Your task to perform on an android device: set the timer Image 0: 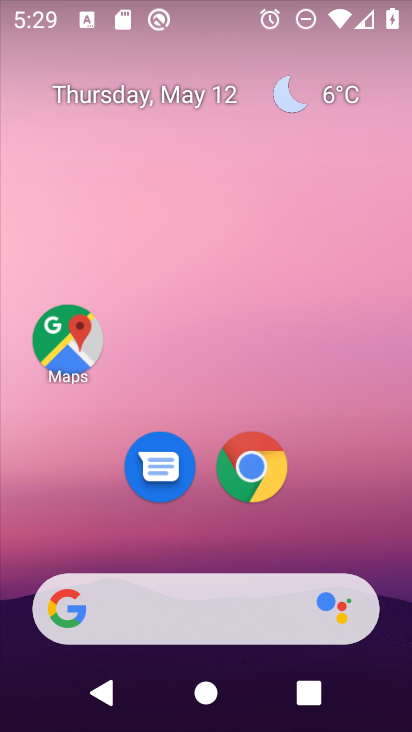
Step 0: drag from (359, 581) to (353, 3)
Your task to perform on an android device: set the timer Image 1: 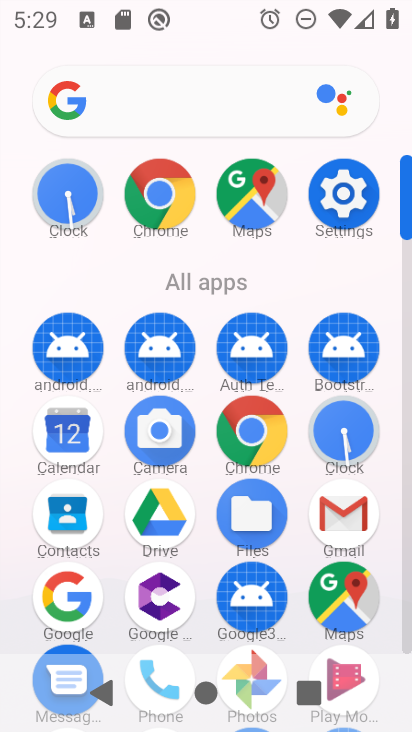
Step 1: click (324, 430)
Your task to perform on an android device: set the timer Image 2: 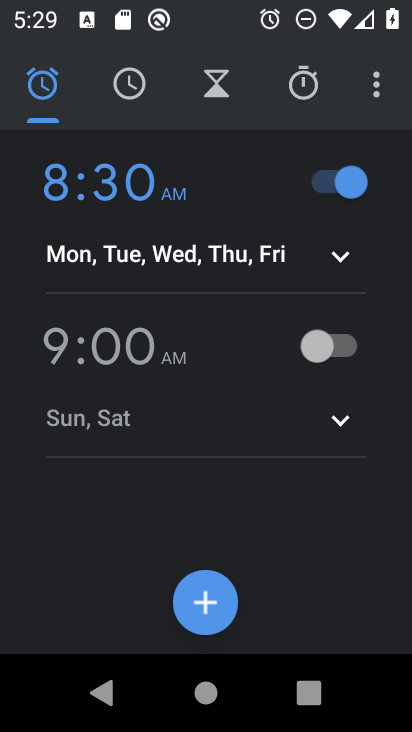
Step 2: click (297, 72)
Your task to perform on an android device: set the timer Image 3: 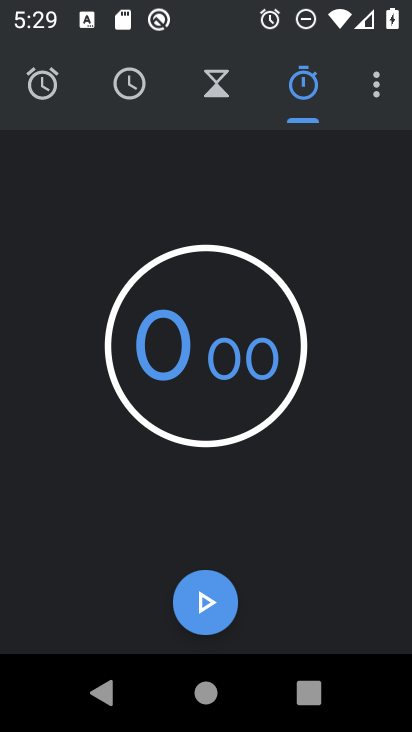
Step 3: click (214, 76)
Your task to perform on an android device: set the timer Image 4: 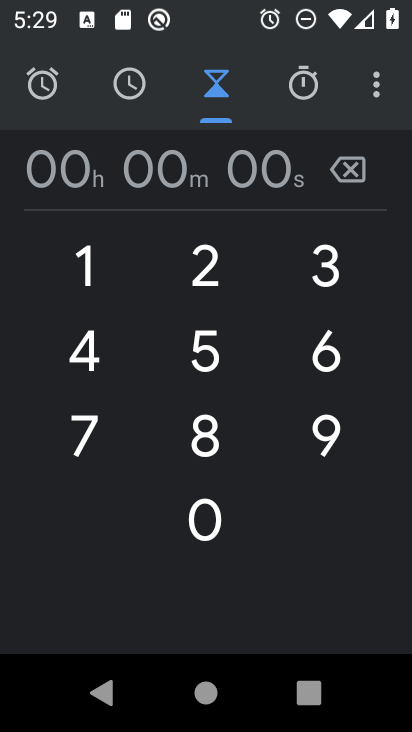
Step 4: click (194, 423)
Your task to perform on an android device: set the timer Image 5: 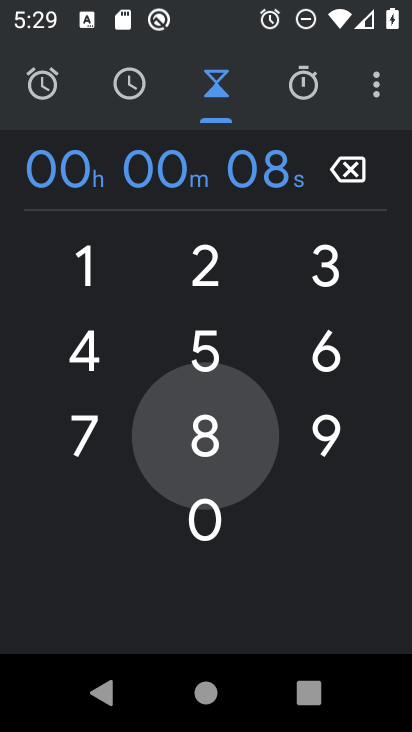
Step 5: click (333, 438)
Your task to perform on an android device: set the timer Image 6: 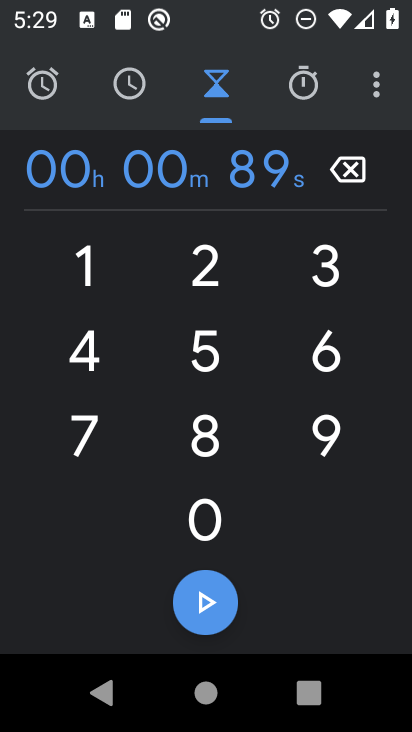
Step 6: click (213, 359)
Your task to perform on an android device: set the timer Image 7: 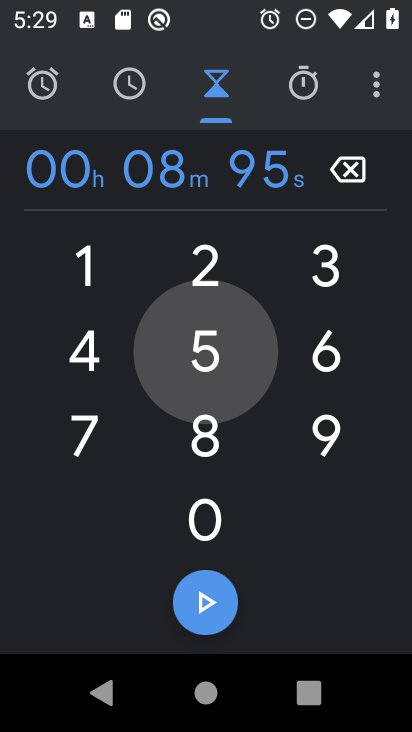
Step 7: click (336, 353)
Your task to perform on an android device: set the timer Image 8: 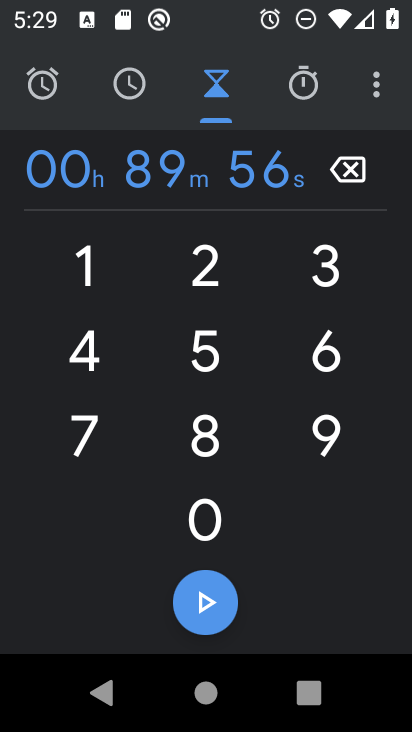
Step 8: click (226, 279)
Your task to perform on an android device: set the timer Image 9: 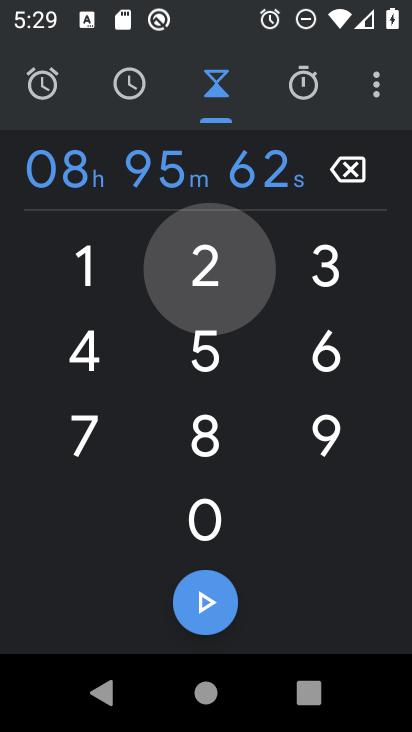
Step 9: click (310, 258)
Your task to perform on an android device: set the timer Image 10: 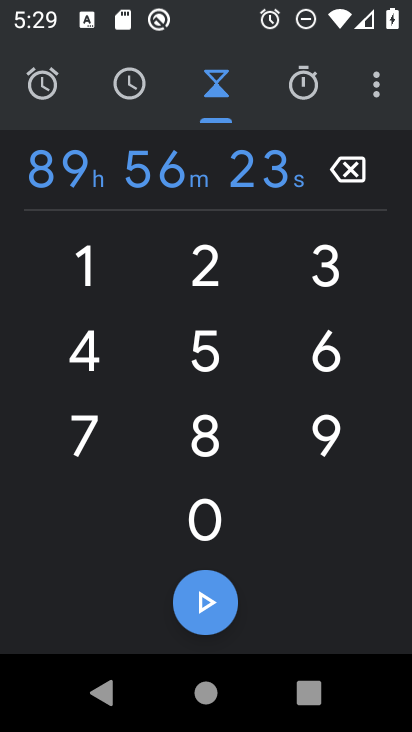
Step 10: click (213, 612)
Your task to perform on an android device: set the timer Image 11: 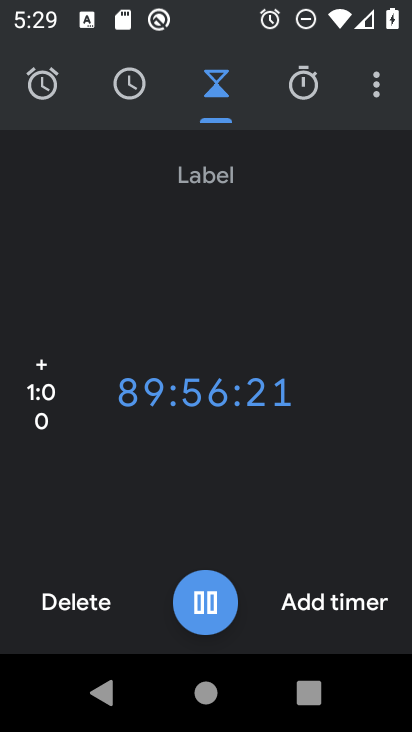
Step 11: task complete